Your task to perform on an android device: Open my contact list Image 0: 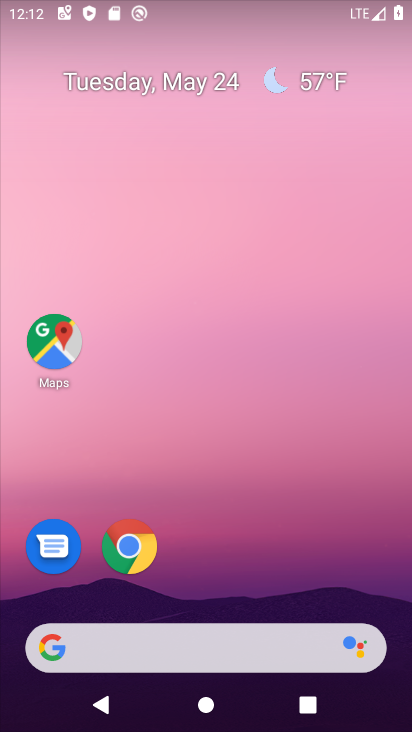
Step 0: drag from (174, 569) to (153, 346)
Your task to perform on an android device: Open my contact list Image 1: 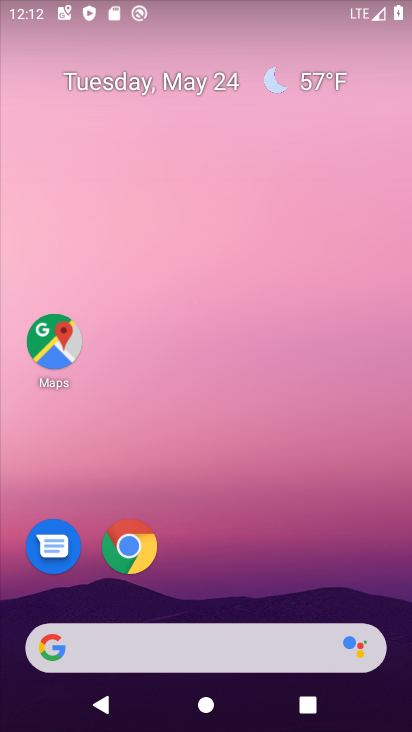
Step 1: click (213, 94)
Your task to perform on an android device: Open my contact list Image 2: 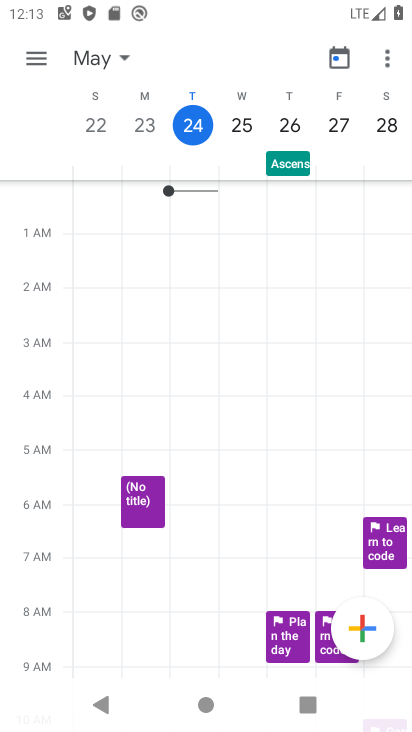
Step 2: drag from (229, 308) to (237, 255)
Your task to perform on an android device: Open my contact list Image 3: 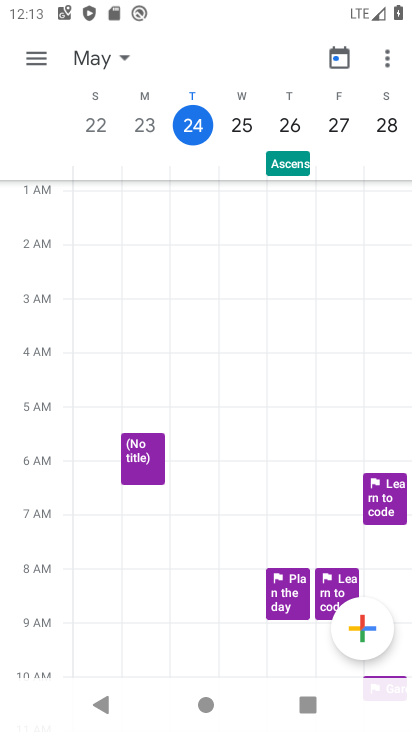
Step 3: press home button
Your task to perform on an android device: Open my contact list Image 4: 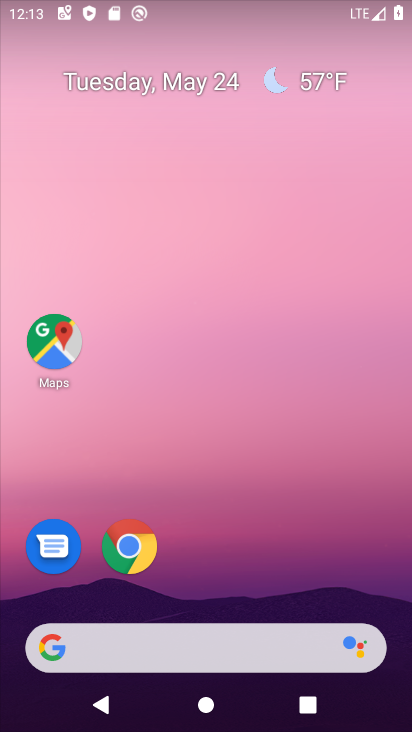
Step 4: drag from (211, 404) to (254, 99)
Your task to perform on an android device: Open my contact list Image 5: 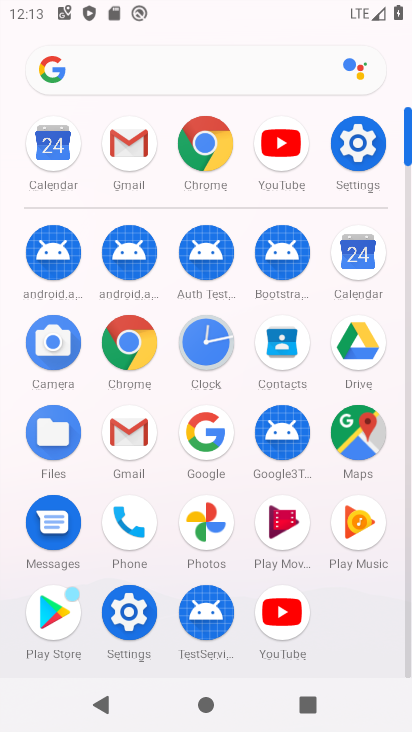
Step 5: click (269, 337)
Your task to perform on an android device: Open my contact list Image 6: 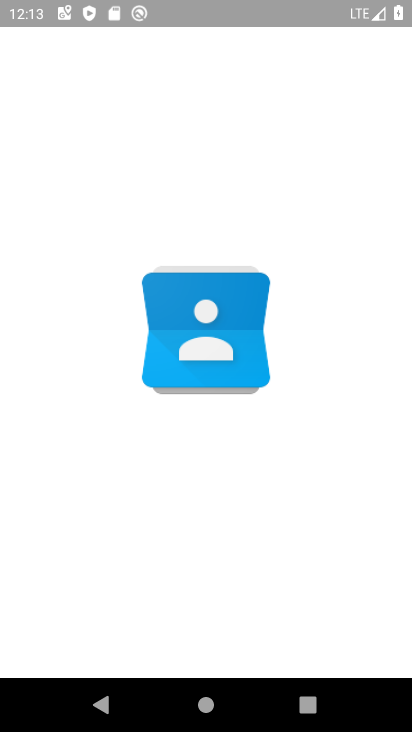
Step 6: task complete